Your task to perform on an android device: see tabs open on other devices in the chrome app Image 0: 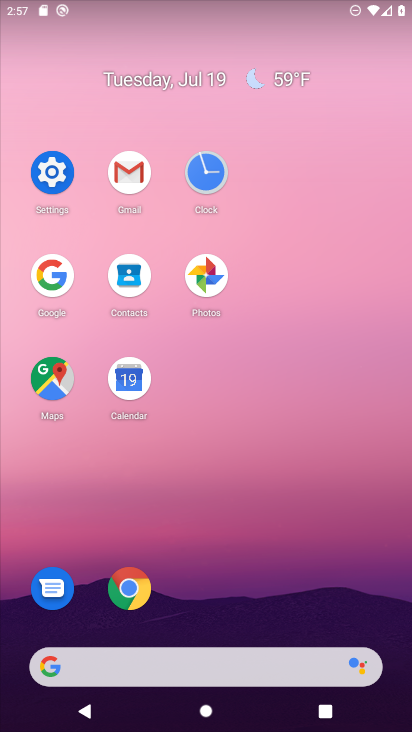
Step 0: click (139, 597)
Your task to perform on an android device: see tabs open on other devices in the chrome app Image 1: 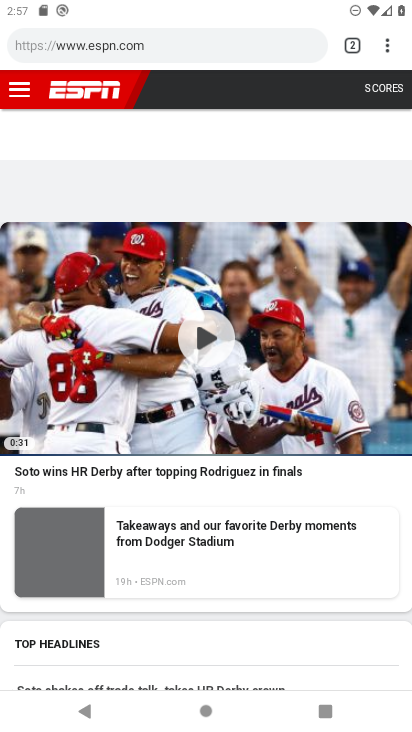
Step 1: click (389, 47)
Your task to perform on an android device: see tabs open on other devices in the chrome app Image 2: 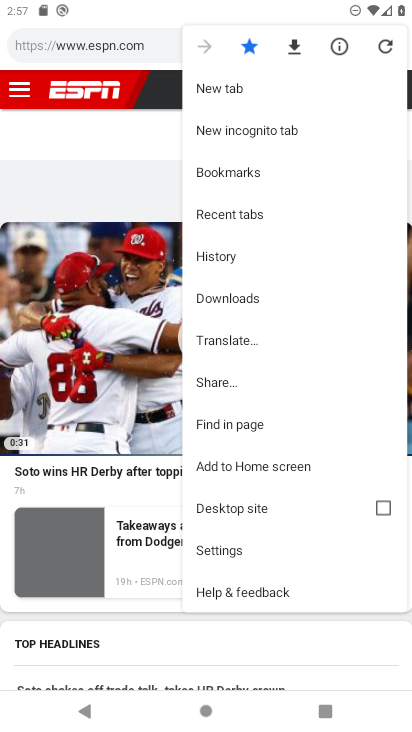
Step 2: click (292, 223)
Your task to perform on an android device: see tabs open on other devices in the chrome app Image 3: 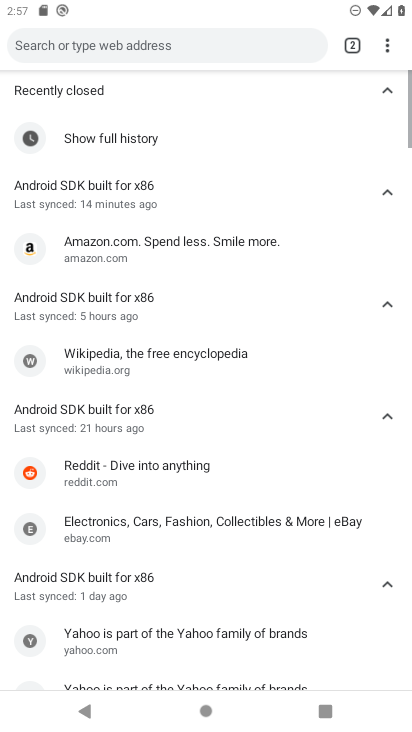
Step 3: task complete